Your task to perform on an android device: Add logitech g502 to the cart on bestbuy.com, then select checkout. Image 0: 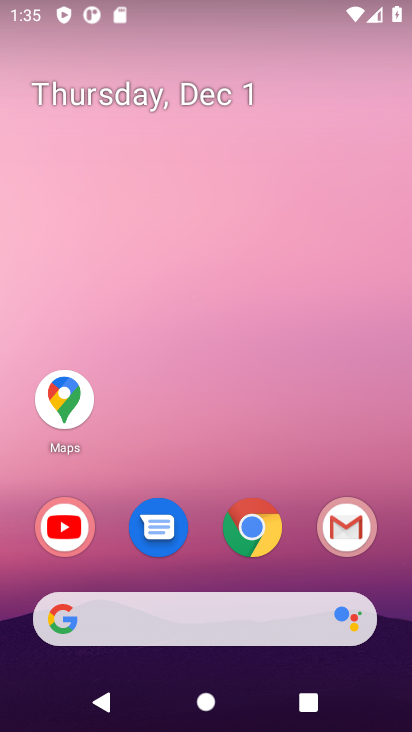
Step 0: click (253, 533)
Your task to perform on an android device: Add logitech g502 to the cart on bestbuy.com, then select checkout. Image 1: 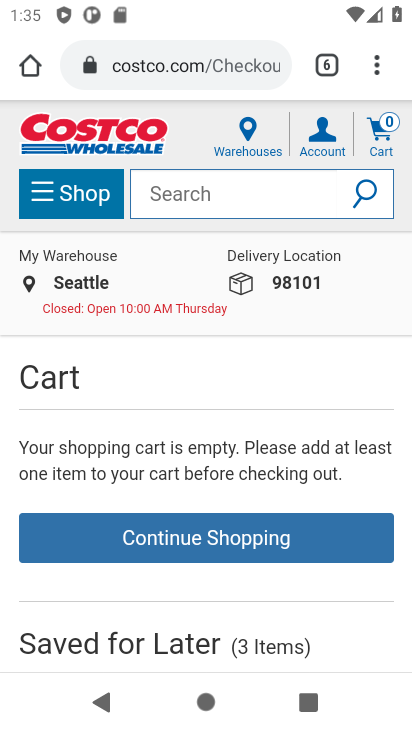
Step 1: click (160, 70)
Your task to perform on an android device: Add logitech g502 to the cart on bestbuy.com, then select checkout. Image 2: 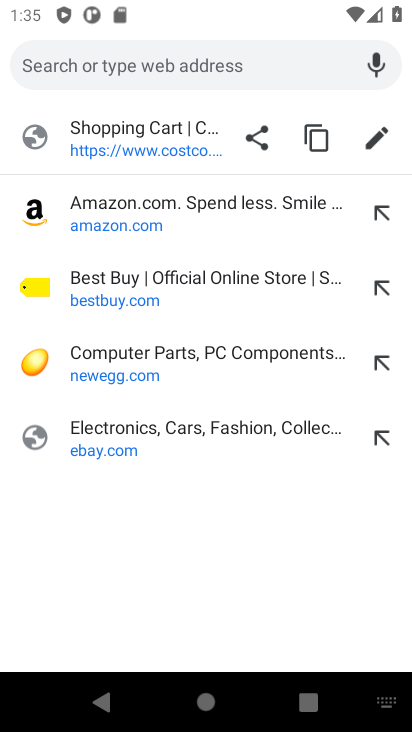
Step 2: click (79, 288)
Your task to perform on an android device: Add logitech g502 to the cart on bestbuy.com, then select checkout. Image 3: 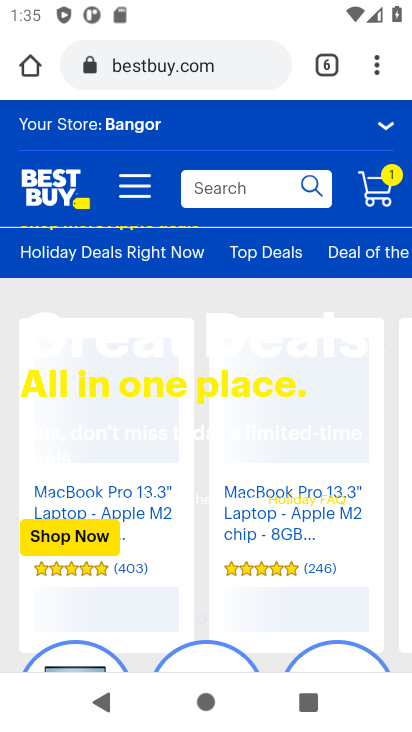
Step 3: click (209, 182)
Your task to perform on an android device: Add logitech g502 to the cart on bestbuy.com, then select checkout. Image 4: 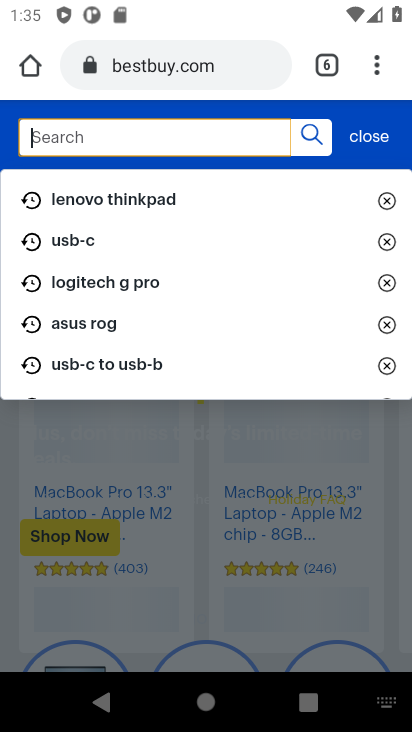
Step 4: type "logitech g502"
Your task to perform on an android device: Add logitech g502 to the cart on bestbuy.com, then select checkout. Image 5: 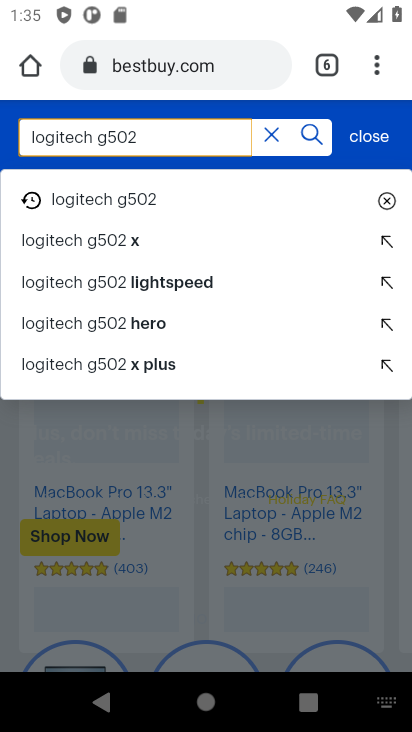
Step 5: click (104, 205)
Your task to perform on an android device: Add logitech g502 to the cart on bestbuy.com, then select checkout. Image 6: 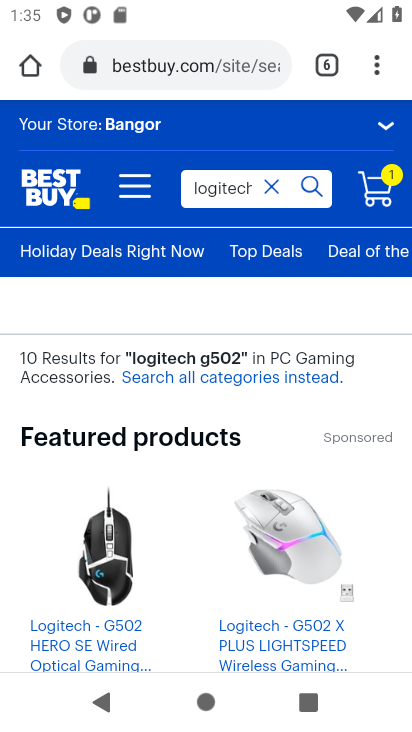
Step 6: drag from (231, 458) to (255, 125)
Your task to perform on an android device: Add logitech g502 to the cart on bestbuy.com, then select checkout. Image 7: 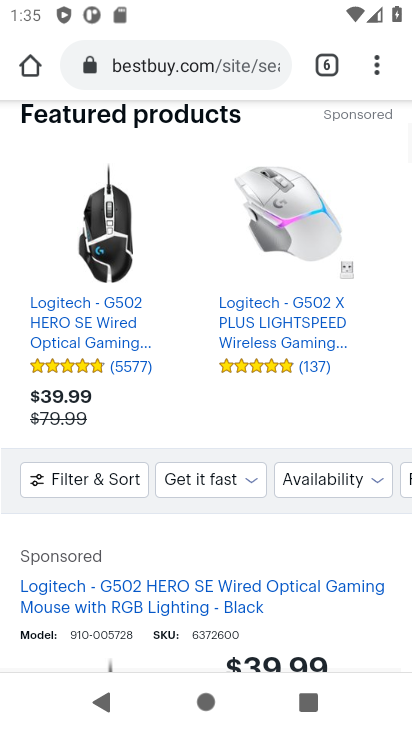
Step 7: drag from (214, 401) to (215, 118)
Your task to perform on an android device: Add logitech g502 to the cart on bestbuy.com, then select checkout. Image 8: 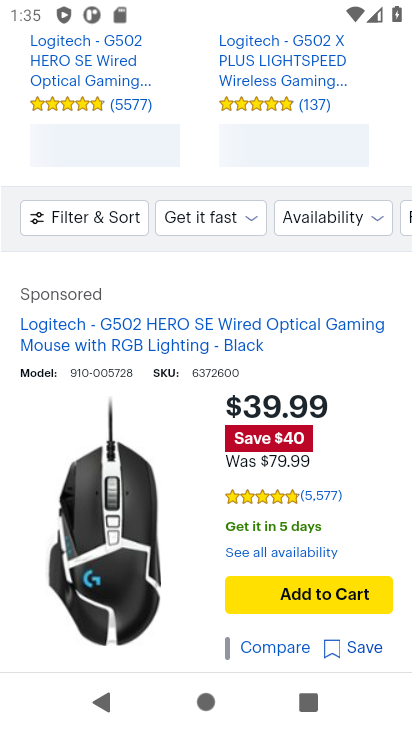
Step 8: click (302, 589)
Your task to perform on an android device: Add logitech g502 to the cart on bestbuy.com, then select checkout. Image 9: 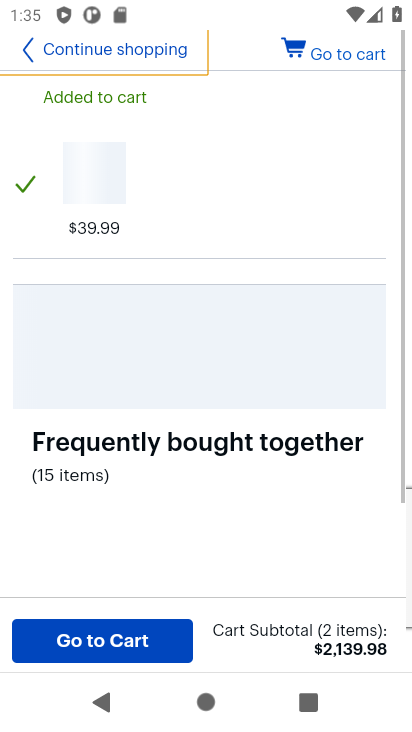
Step 9: click (341, 59)
Your task to perform on an android device: Add logitech g502 to the cart on bestbuy.com, then select checkout. Image 10: 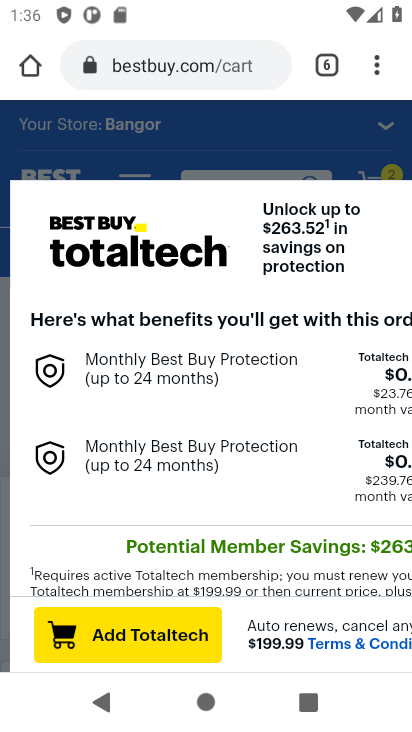
Step 10: click (253, 138)
Your task to perform on an android device: Add logitech g502 to the cart on bestbuy.com, then select checkout. Image 11: 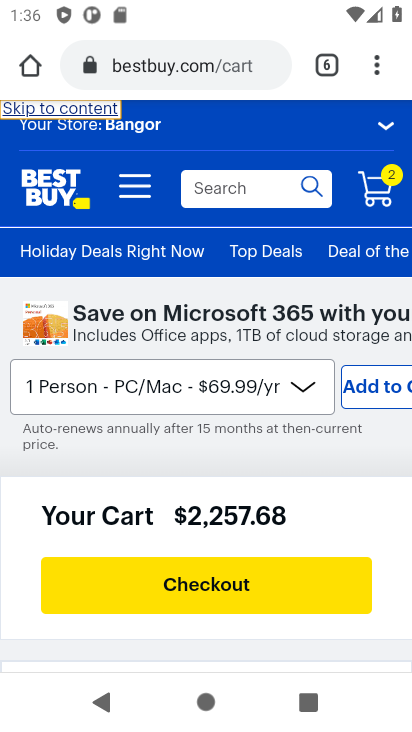
Step 11: click (196, 583)
Your task to perform on an android device: Add logitech g502 to the cart on bestbuy.com, then select checkout. Image 12: 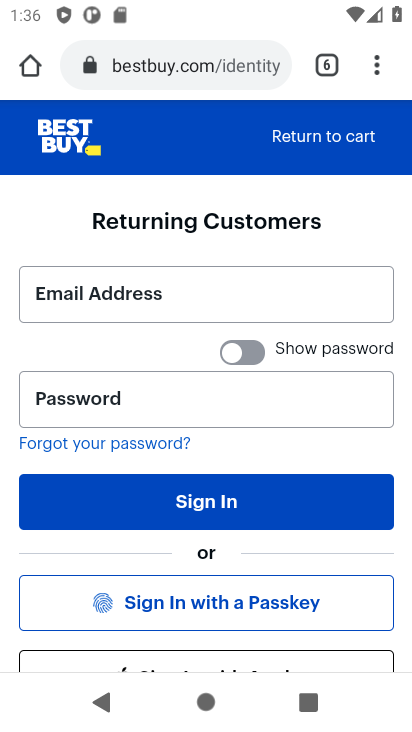
Step 12: task complete